Your task to perform on an android device: toggle show notifications on the lock screen Image 0: 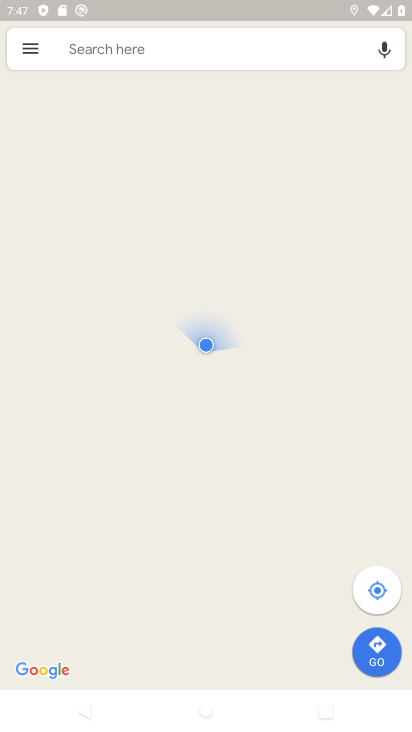
Step 0: press home button
Your task to perform on an android device: toggle show notifications on the lock screen Image 1: 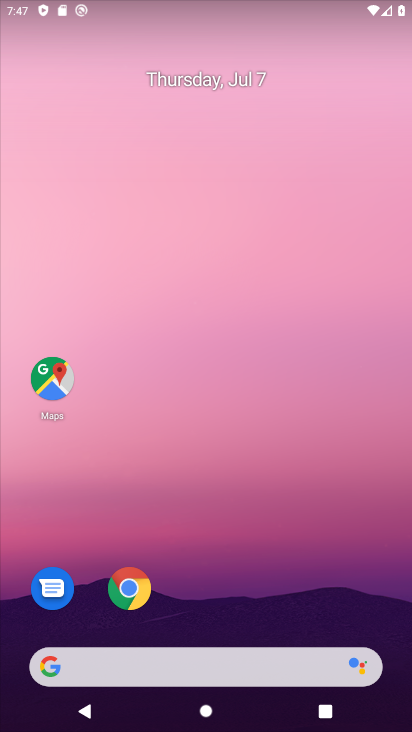
Step 1: drag from (280, 556) to (272, 4)
Your task to perform on an android device: toggle show notifications on the lock screen Image 2: 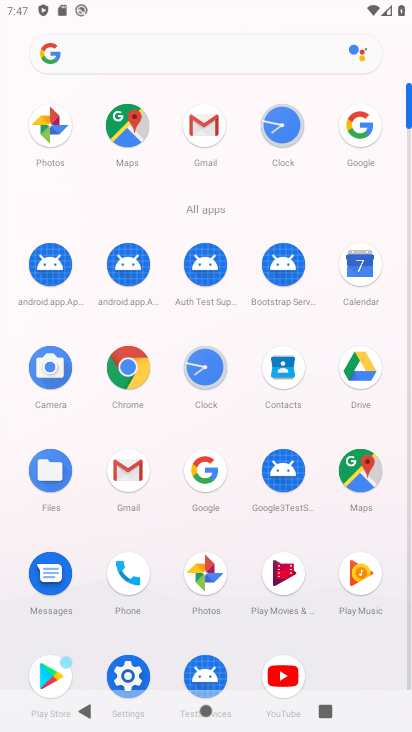
Step 2: click (139, 668)
Your task to perform on an android device: toggle show notifications on the lock screen Image 3: 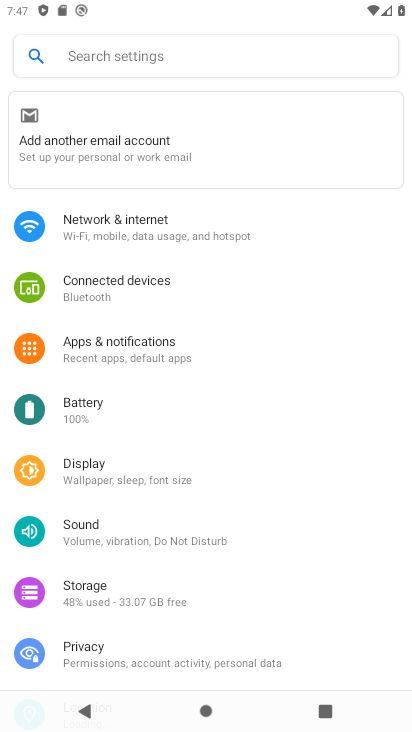
Step 3: drag from (302, 601) to (220, 579)
Your task to perform on an android device: toggle show notifications on the lock screen Image 4: 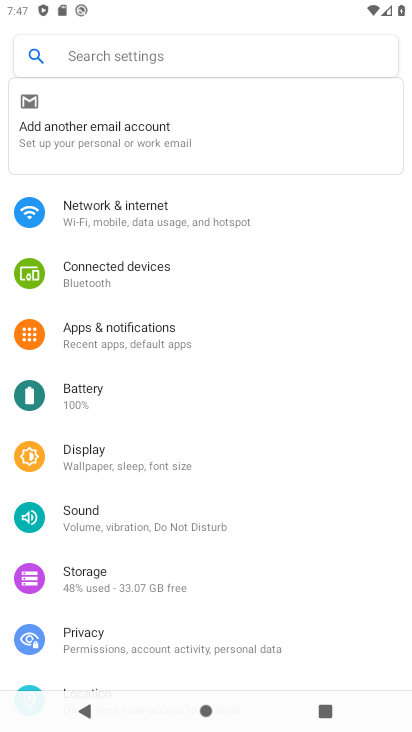
Step 4: click (97, 337)
Your task to perform on an android device: toggle show notifications on the lock screen Image 5: 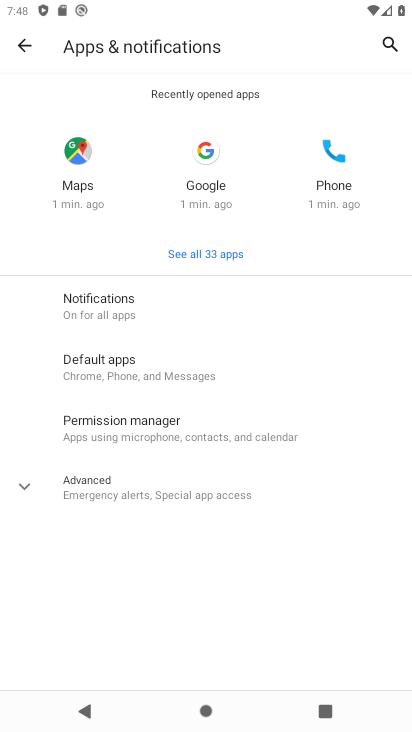
Step 5: click (104, 310)
Your task to perform on an android device: toggle show notifications on the lock screen Image 6: 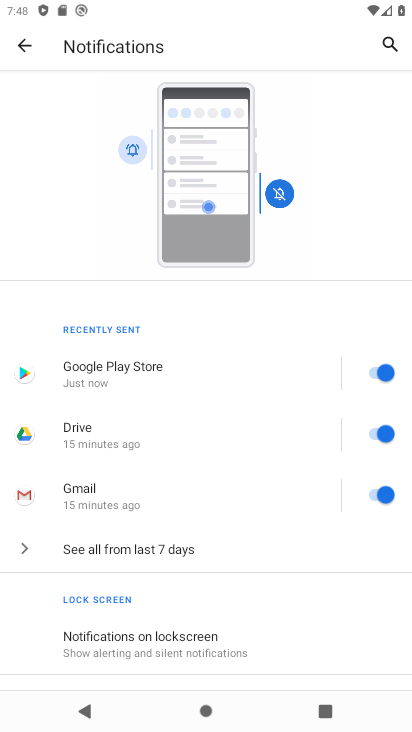
Step 6: drag from (265, 646) to (245, 379)
Your task to perform on an android device: toggle show notifications on the lock screen Image 7: 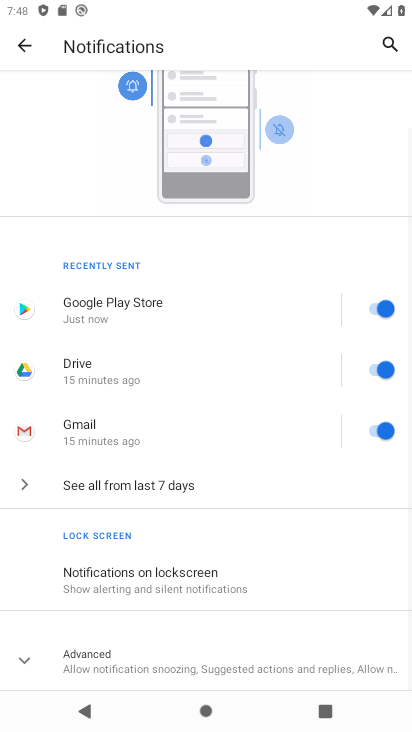
Step 7: click (162, 581)
Your task to perform on an android device: toggle show notifications on the lock screen Image 8: 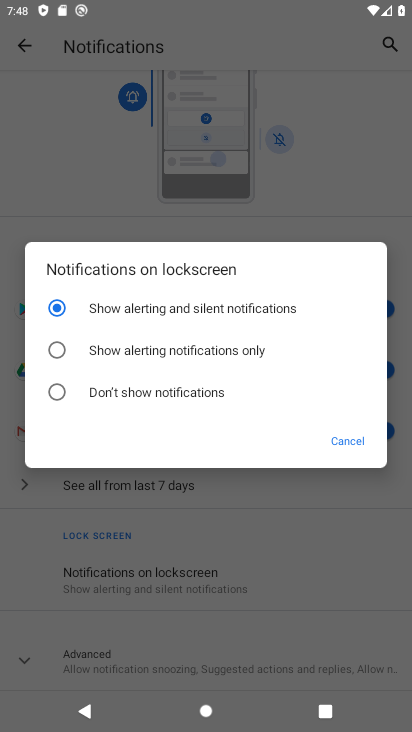
Step 8: click (173, 355)
Your task to perform on an android device: toggle show notifications on the lock screen Image 9: 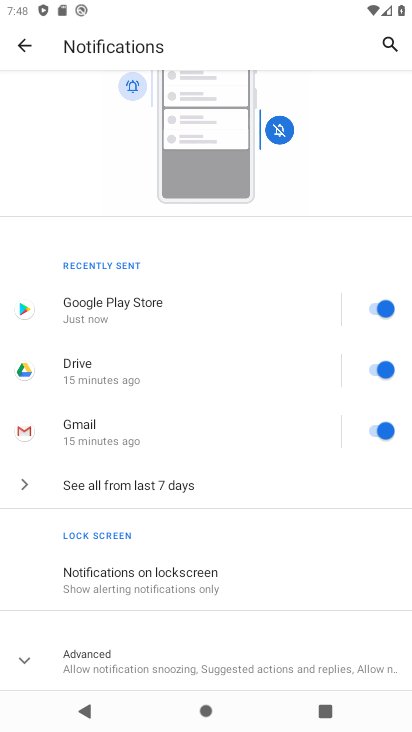
Step 9: task complete